Your task to perform on an android device: turn on priority inbox in the gmail app Image 0: 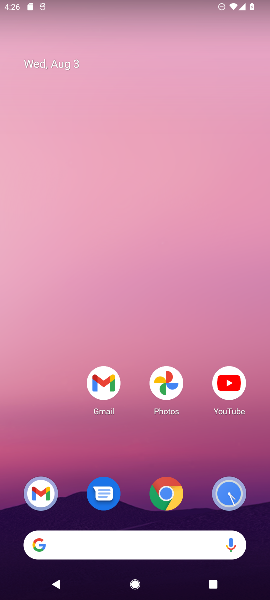
Step 0: drag from (68, 443) to (73, 141)
Your task to perform on an android device: turn on priority inbox in the gmail app Image 1: 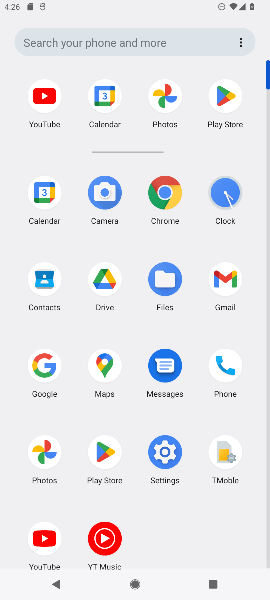
Step 1: click (235, 288)
Your task to perform on an android device: turn on priority inbox in the gmail app Image 2: 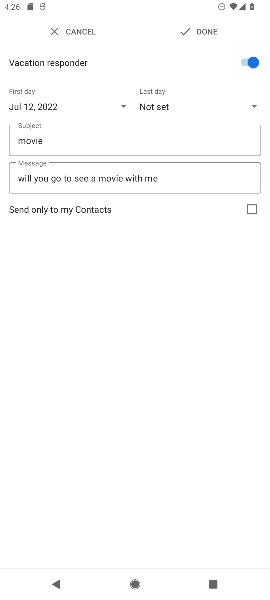
Step 2: press back button
Your task to perform on an android device: turn on priority inbox in the gmail app Image 3: 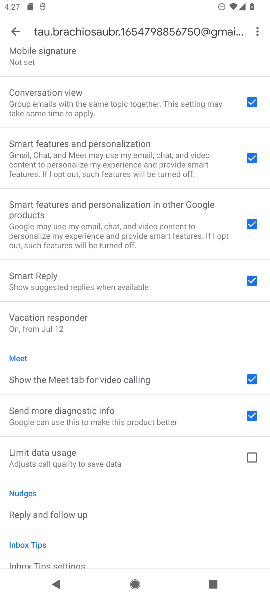
Step 3: drag from (181, 448) to (201, 329)
Your task to perform on an android device: turn on priority inbox in the gmail app Image 4: 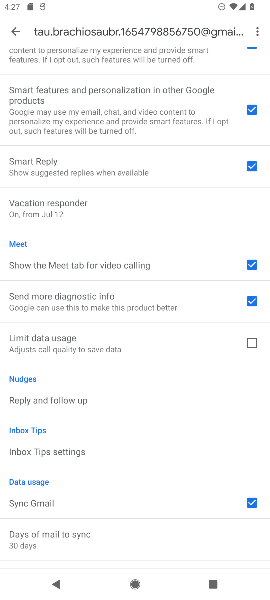
Step 4: drag from (192, 455) to (193, 318)
Your task to perform on an android device: turn on priority inbox in the gmail app Image 5: 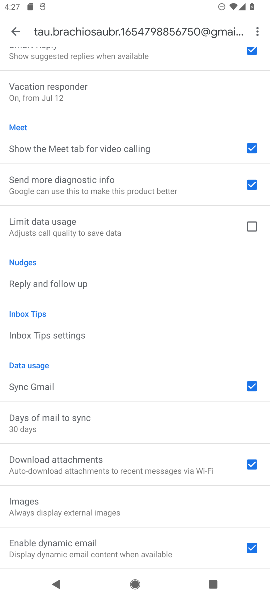
Step 5: drag from (172, 434) to (168, 290)
Your task to perform on an android device: turn on priority inbox in the gmail app Image 6: 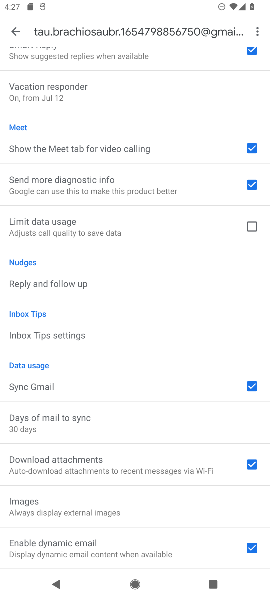
Step 6: drag from (160, 454) to (161, 341)
Your task to perform on an android device: turn on priority inbox in the gmail app Image 7: 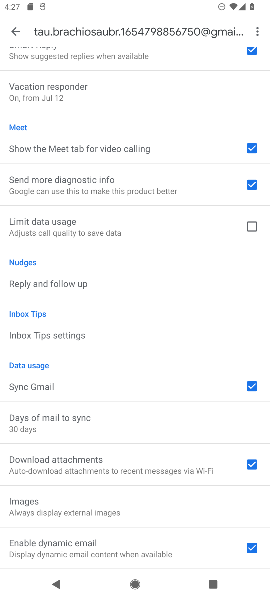
Step 7: drag from (166, 452) to (171, 252)
Your task to perform on an android device: turn on priority inbox in the gmail app Image 8: 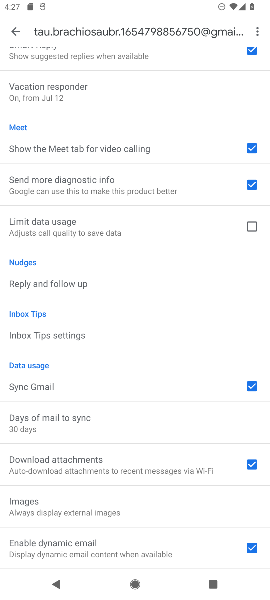
Step 8: drag from (178, 182) to (178, 327)
Your task to perform on an android device: turn on priority inbox in the gmail app Image 9: 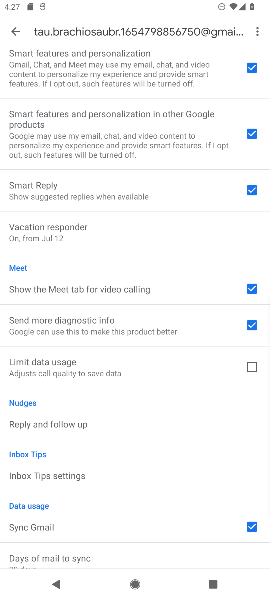
Step 9: drag from (186, 178) to (185, 352)
Your task to perform on an android device: turn on priority inbox in the gmail app Image 10: 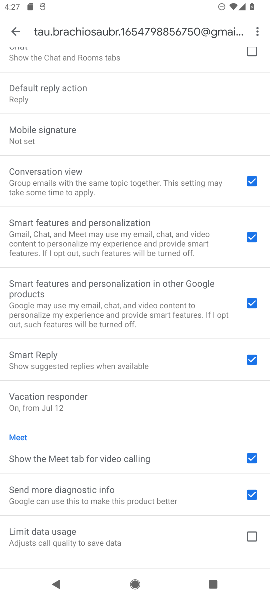
Step 10: drag from (168, 465) to (167, 350)
Your task to perform on an android device: turn on priority inbox in the gmail app Image 11: 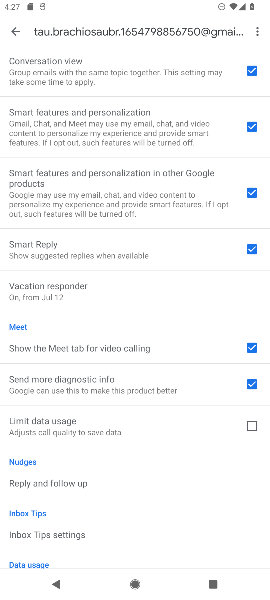
Step 11: drag from (194, 256) to (199, 394)
Your task to perform on an android device: turn on priority inbox in the gmail app Image 12: 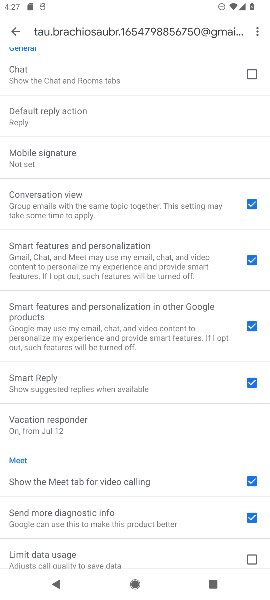
Step 12: drag from (182, 213) to (184, 387)
Your task to perform on an android device: turn on priority inbox in the gmail app Image 13: 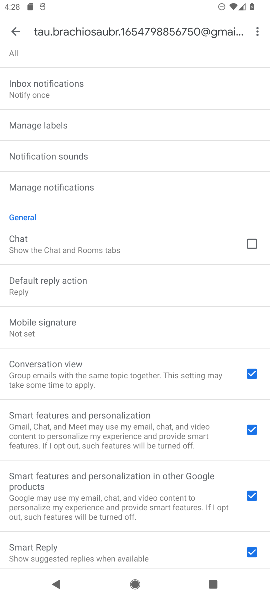
Step 13: drag from (166, 131) to (167, 309)
Your task to perform on an android device: turn on priority inbox in the gmail app Image 14: 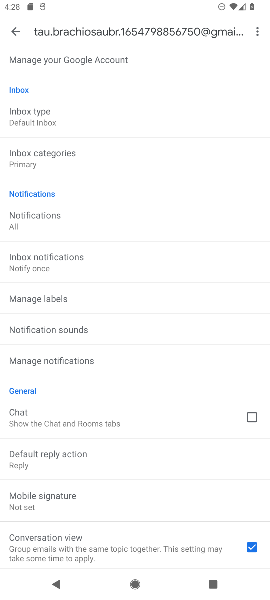
Step 14: click (67, 113)
Your task to perform on an android device: turn on priority inbox in the gmail app Image 15: 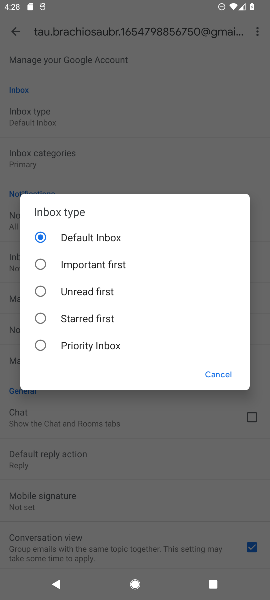
Step 15: click (58, 339)
Your task to perform on an android device: turn on priority inbox in the gmail app Image 16: 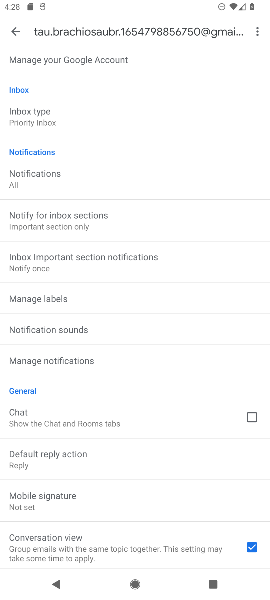
Step 16: task complete